Your task to perform on an android device: Play the last video I watched on Youtube Image 0: 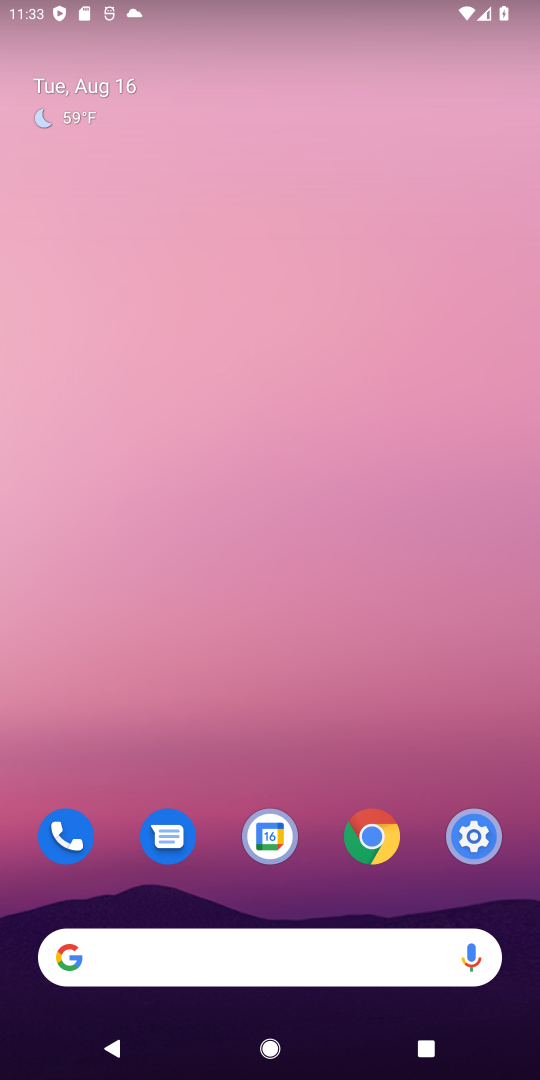
Step 0: drag from (222, 952) to (268, 83)
Your task to perform on an android device: Play the last video I watched on Youtube Image 1: 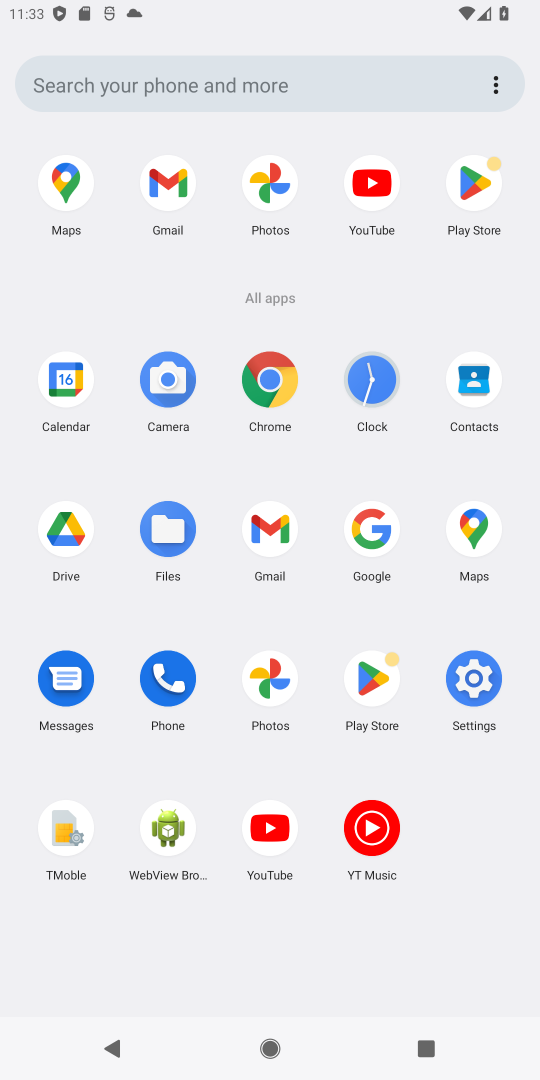
Step 1: click (369, 186)
Your task to perform on an android device: Play the last video I watched on Youtube Image 2: 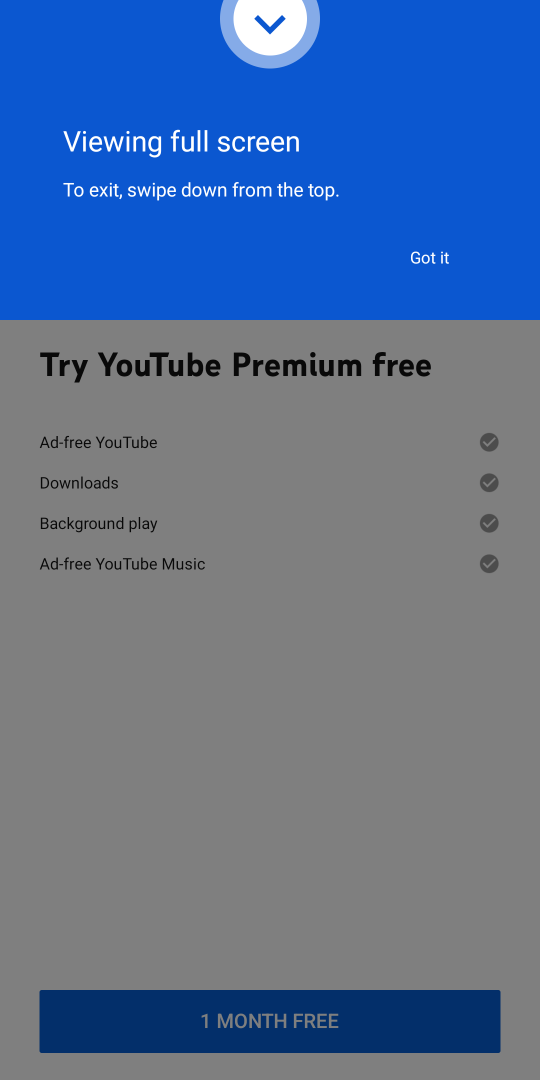
Step 2: click (436, 259)
Your task to perform on an android device: Play the last video I watched on Youtube Image 3: 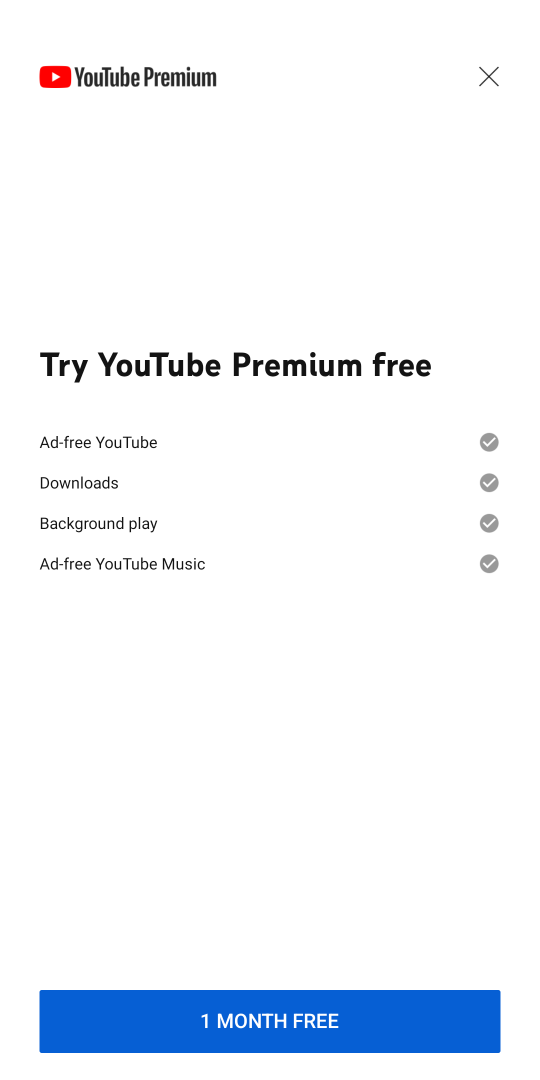
Step 3: click (487, 82)
Your task to perform on an android device: Play the last video I watched on Youtube Image 4: 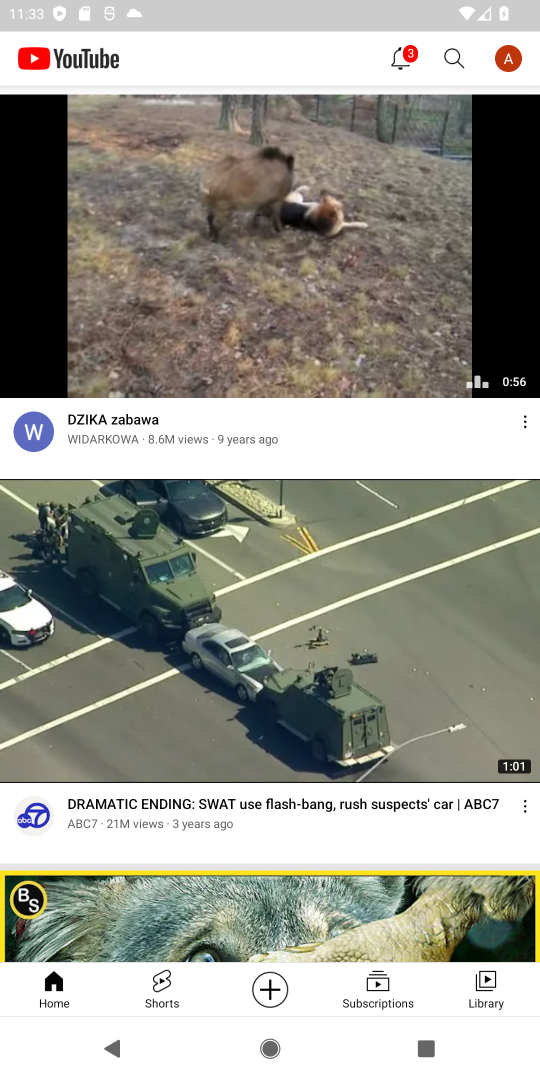
Step 4: click (497, 985)
Your task to perform on an android device: Play the last video I watched on Youtube Image 5: 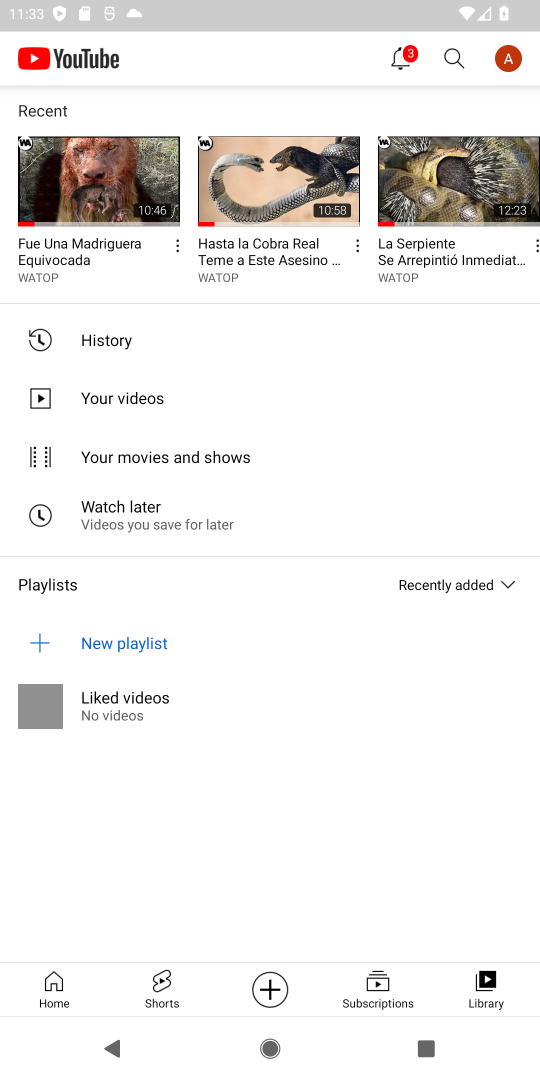
Step 5: click (102, 210)
Your task to perform on an android device: Play the last video I watched on Youtube Image 6: 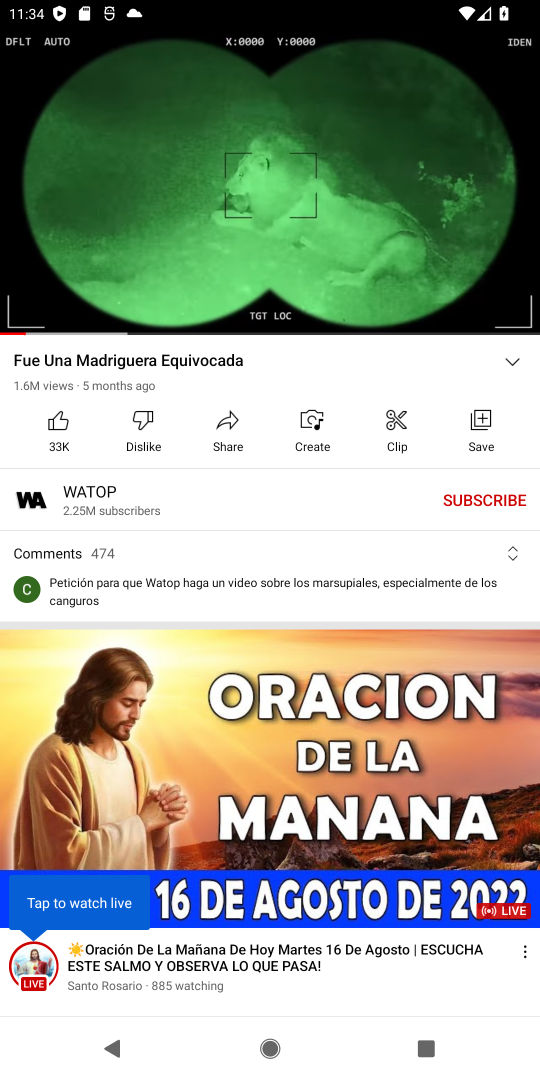
Step 6: task complete